Your task to perform on an android device: Search for "energizer triple a" on costco.com, select the first entry, and add it to the cart. Image 0: 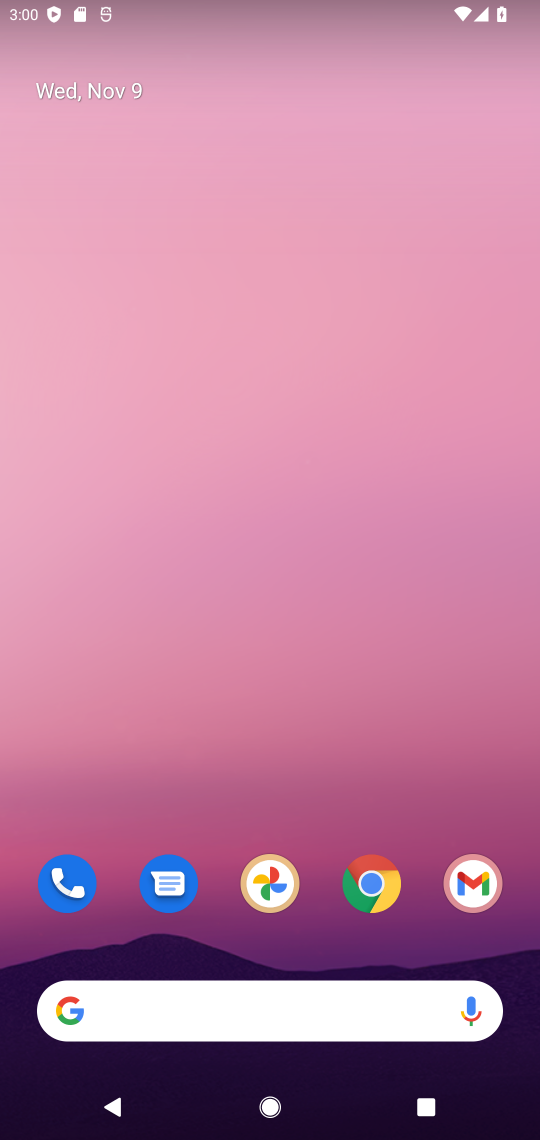
Step 0: click (357, 886)
Your task to perform on an android device: Search for "energizer triple a" on costco.com, select the first entry, and add it to the cart. Image 1: 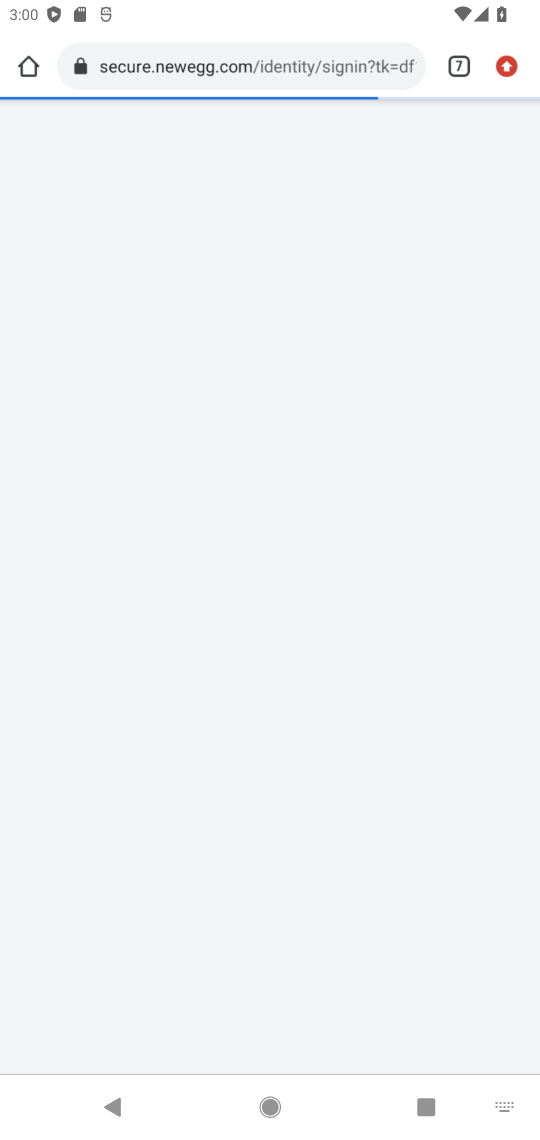
Step 1: click (460, 61)
Your task to perform on an android device: Search for "energizer triple a" on costco.com, select the first entry, and add it to the cart. Image 2: 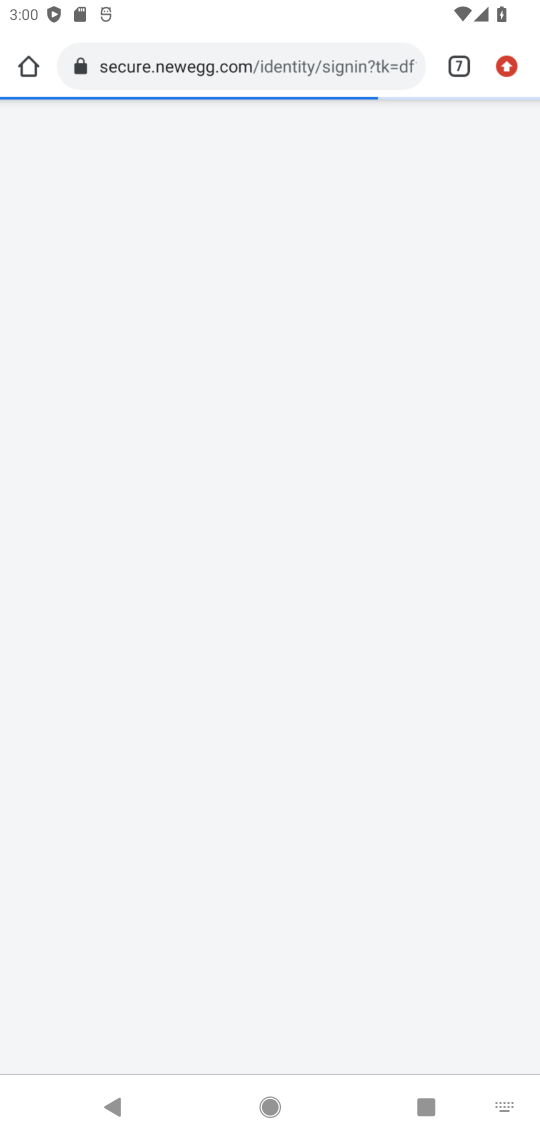
Step 2: click (461, 57)
Your task to perform on an android device: Search for "energizer triple a" on costco.com, select the first entry, and add it to the cart. Image 3: 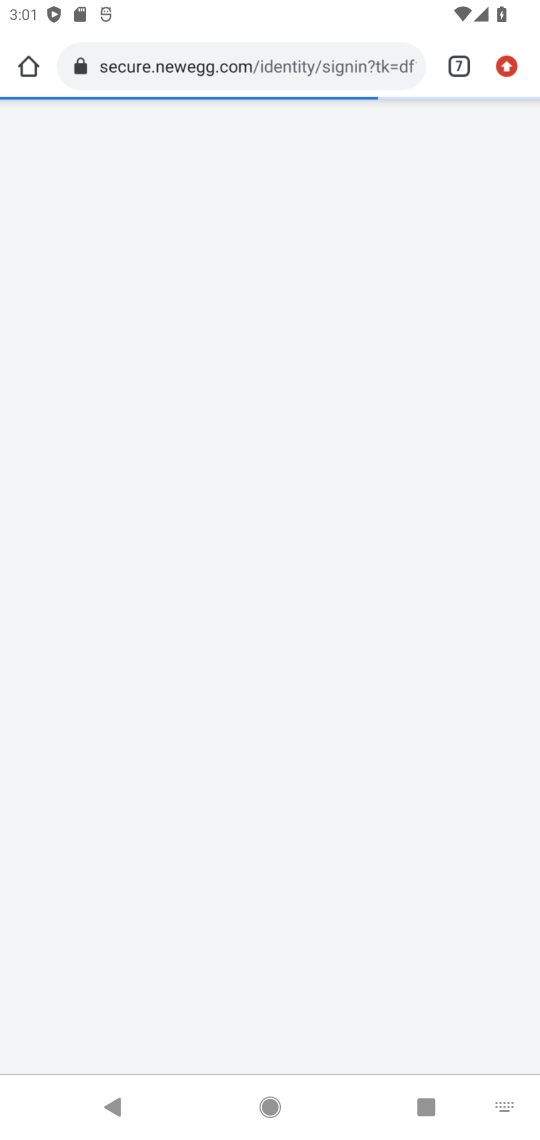
Step 3: press home button
Your task to perform on an android device: Search for "energizer triple a" on costco.com, select the first entry, and add it to the cart. Image 4: 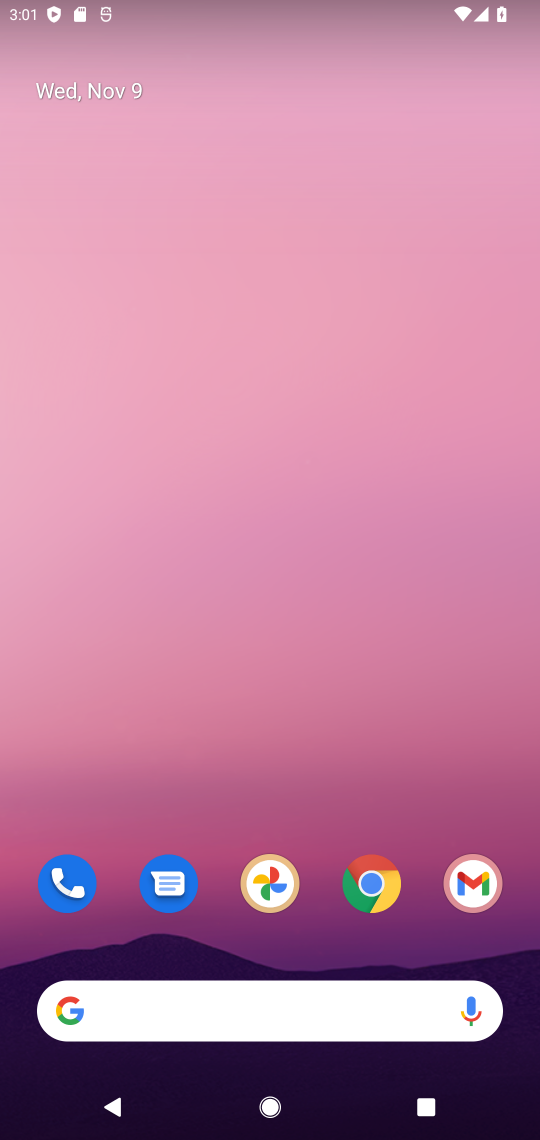
Step 4: click (391, 874)
Your task to perform on an android device: Search for "energizer triple a" on costco.com, select the first entry, and add it to the cart. Image 5: 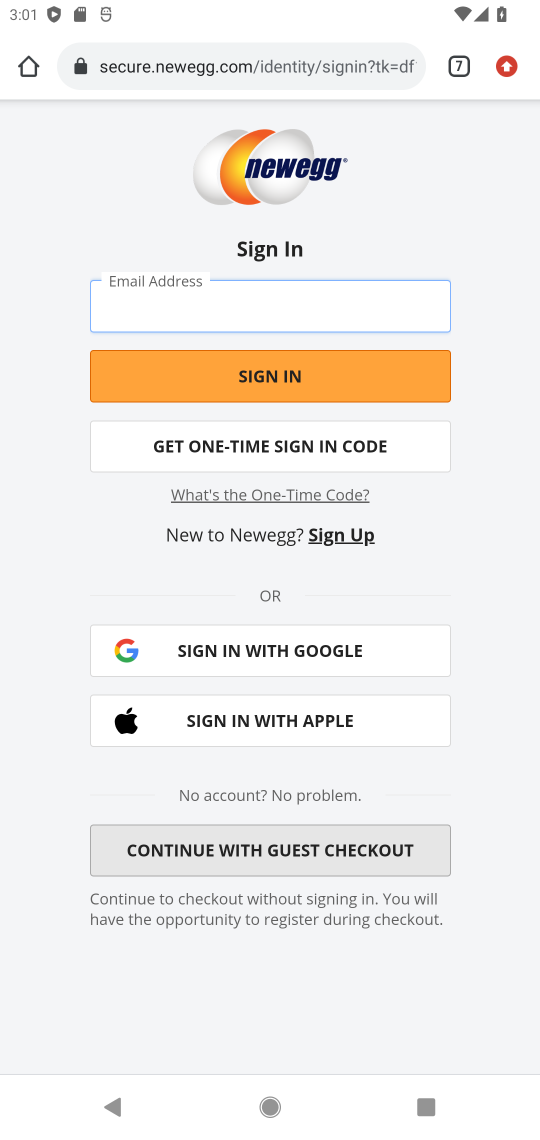
Step 5: click (463, 74)
Your task to perform on an android device: Search for "energizer triple a" on costco.com, select the first entry, and add it to the cart. Image 6: 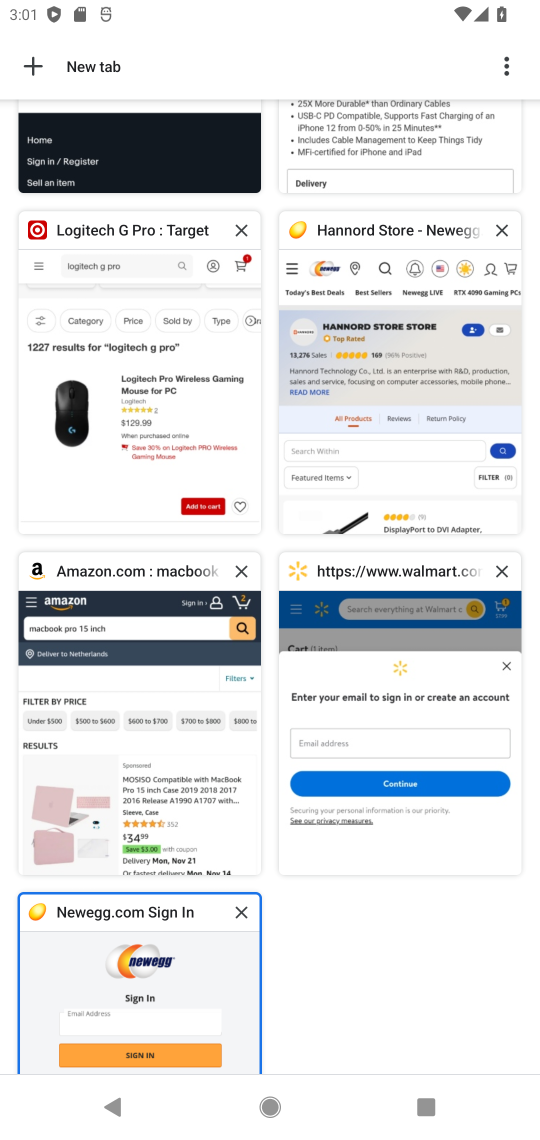
Step 6: drag from (420, 158) to (379, 673)
Your task to perform on an android device: Search for "energizer triple a" on costco.com, select the first entry, and add it to the cart. Image 7: 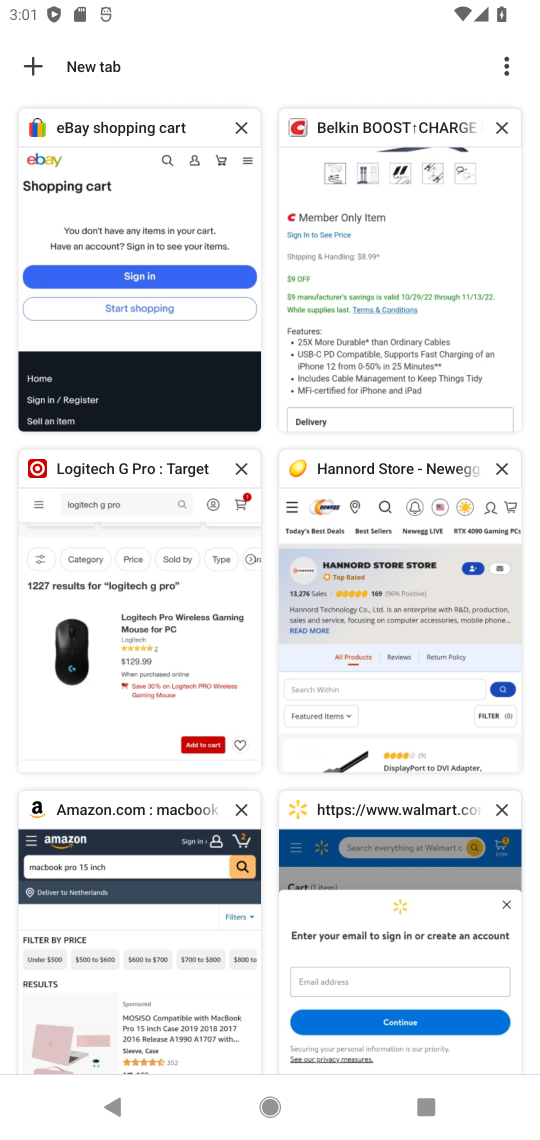
Step 7: click (406, 273)
Your task to perform on an android device: Search for "energizer triple a" on costco.com, select the first entry, and add it to the cart. Image 8: 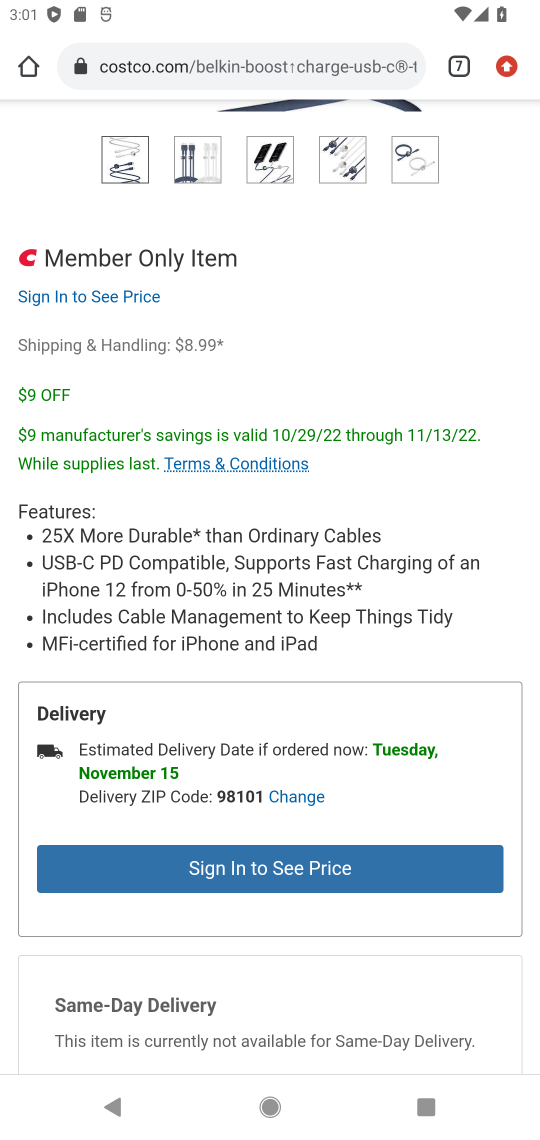
Step 8: drag from (331, 335) to (291, 891)
Your task to perform on an android device: Search for "energizer triple a" on costco.com, select the first entry, and add it to the cart. Image 9: 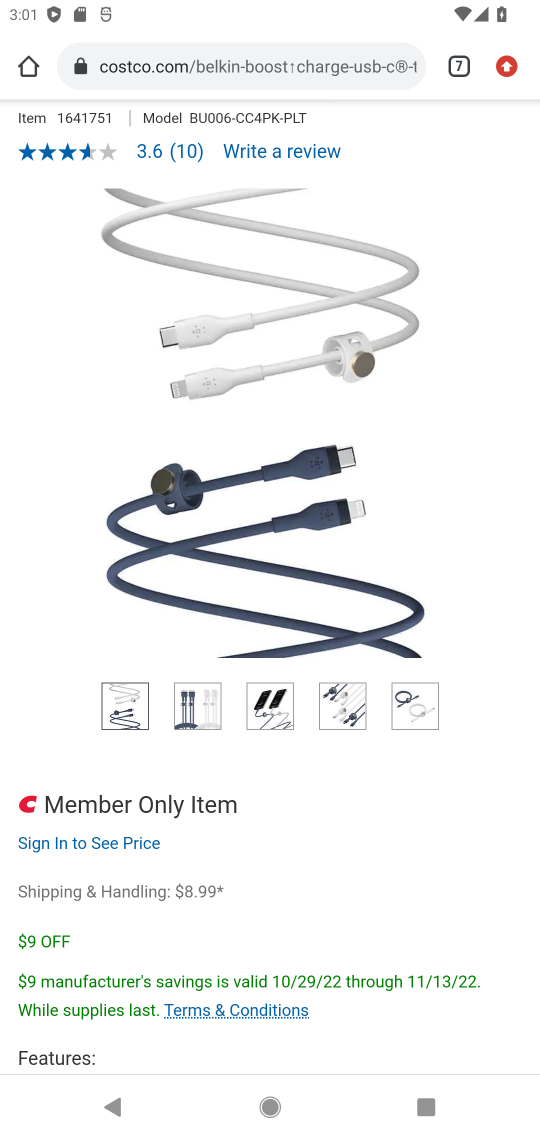
Step 9: drag from (396, 242) to (341, 1132)
Your task to perform on an android device: Search for "energizer triple a" on costco.com, select the first entry, and add it to the cart. Image 10: 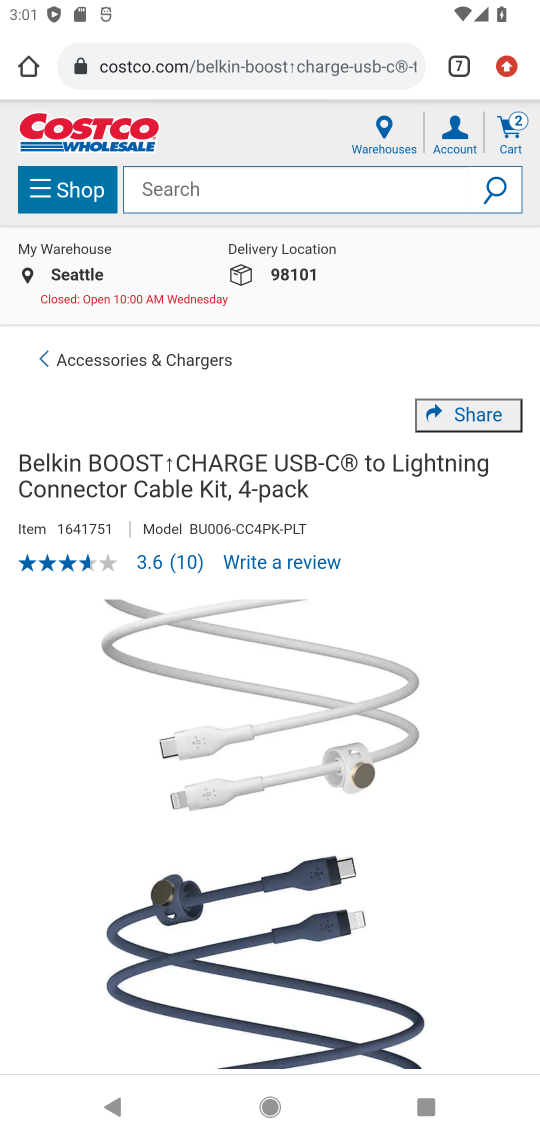
Step 10: click (178, 185)
Your task to perform on an android device: Search for "energizer triple a" on costco.com, select the first entry, and add it to the cart. Image 11: 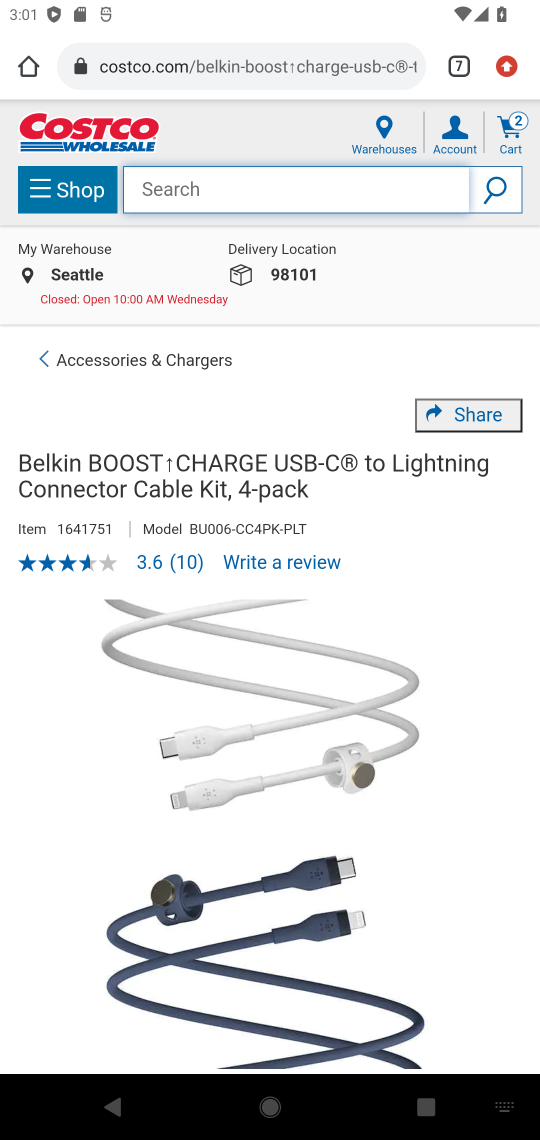
Step 11: type "energizer triple a"
Your task to perform on an android device: Search for "energizer triple a" on costco.com, select the first entry, and add it to the cart. Image 12: 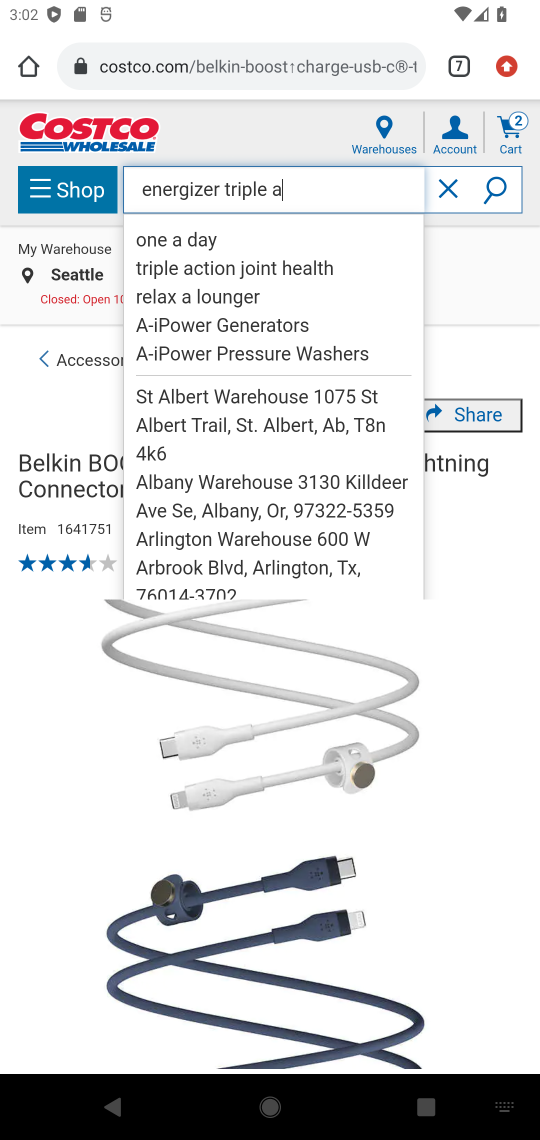
Step 12: click (497, 179)
Your task to perform on an android device: Search for "energizer triple a" on costco.com, select the first entry, and add it to the cart. Image 13: 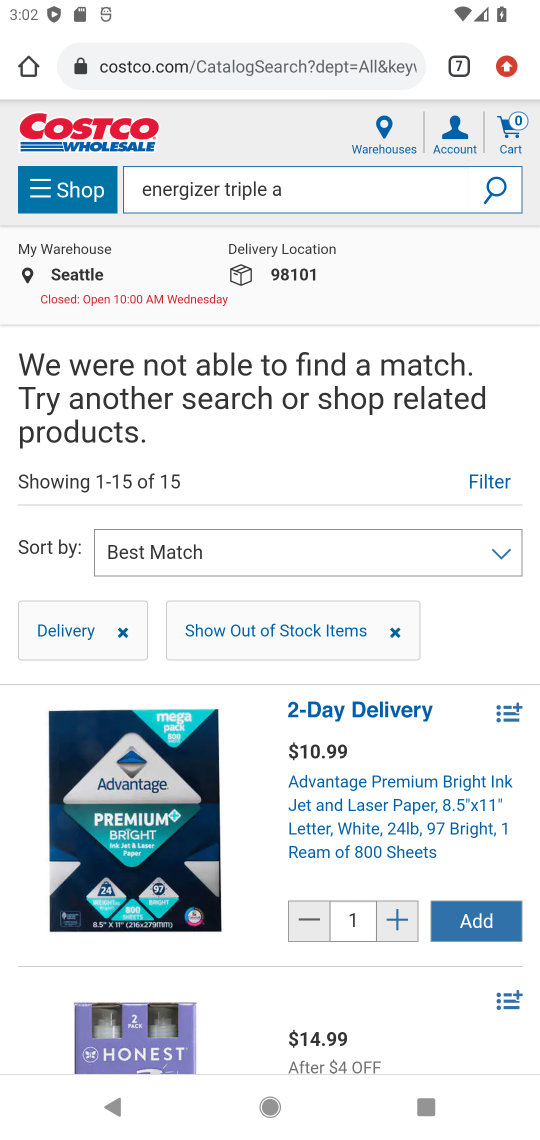
Step 13: drag from (272, 1004) to (346, 391)
Your task to perform on an android device: Search for "energizer triple a" on costco.com, select the first entry, and add it to the cart. Image 14: 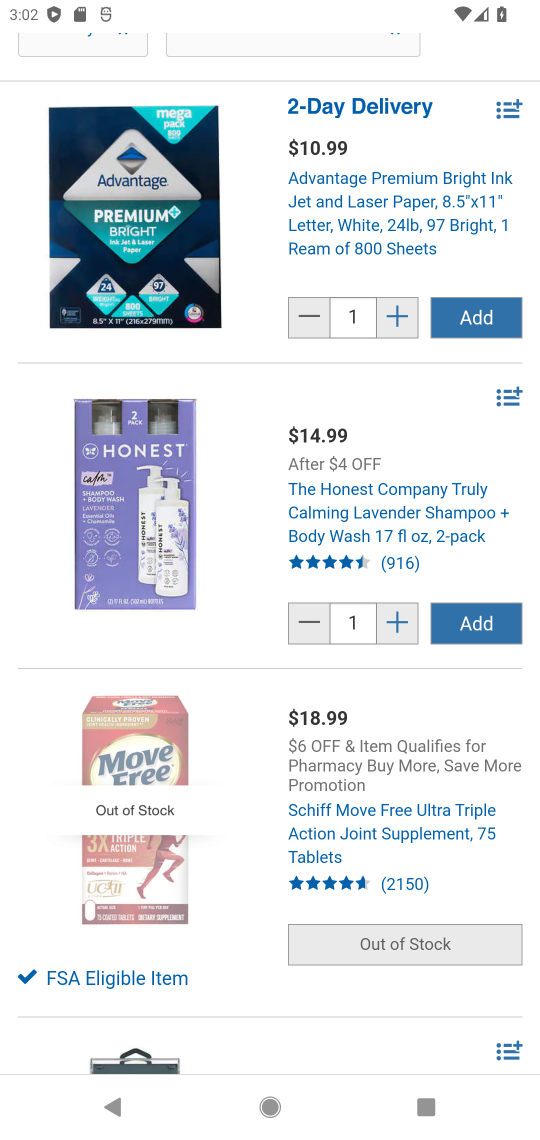
Step 14: drag from (237, 870) to (281, 189)
Your task to perform on an android device: Search for "energizer triple a" on costco.com, select the first entry, and add it to the cart. Image 15: 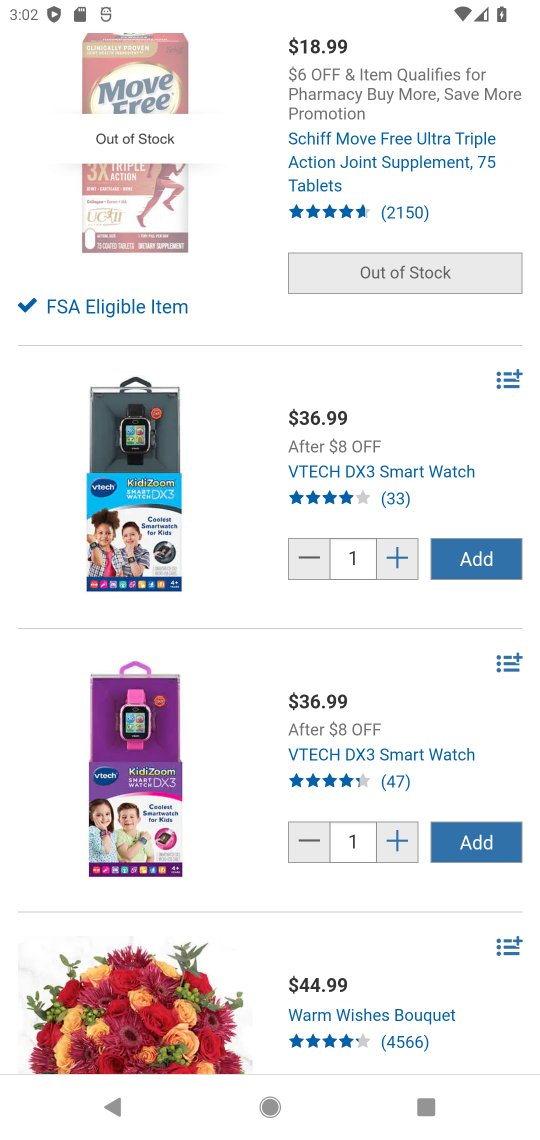
Step 15: drag from (276, 154) to (297, 1009)
Your task to perform on an android device: Search for "energizer triple a" on costco.com, select the first entry, and add it to the cart. Image 16: 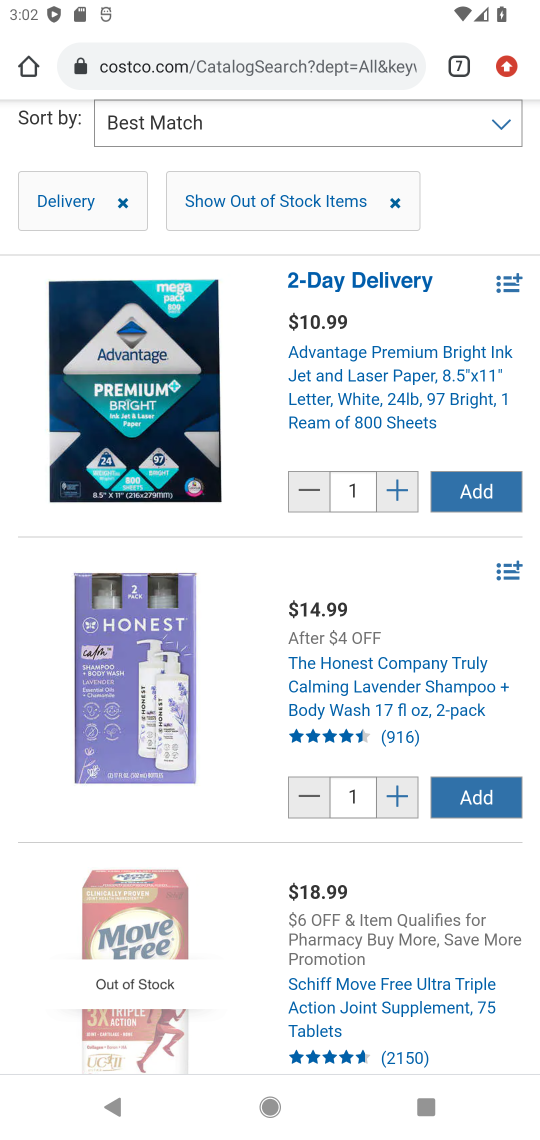
Step 16: drag from (249, 381) to (170, 1060)
Your task to perform on an android device: Search for "energizer triple a" on costco.com, select the first entry, and add it to the cart. Image 17: 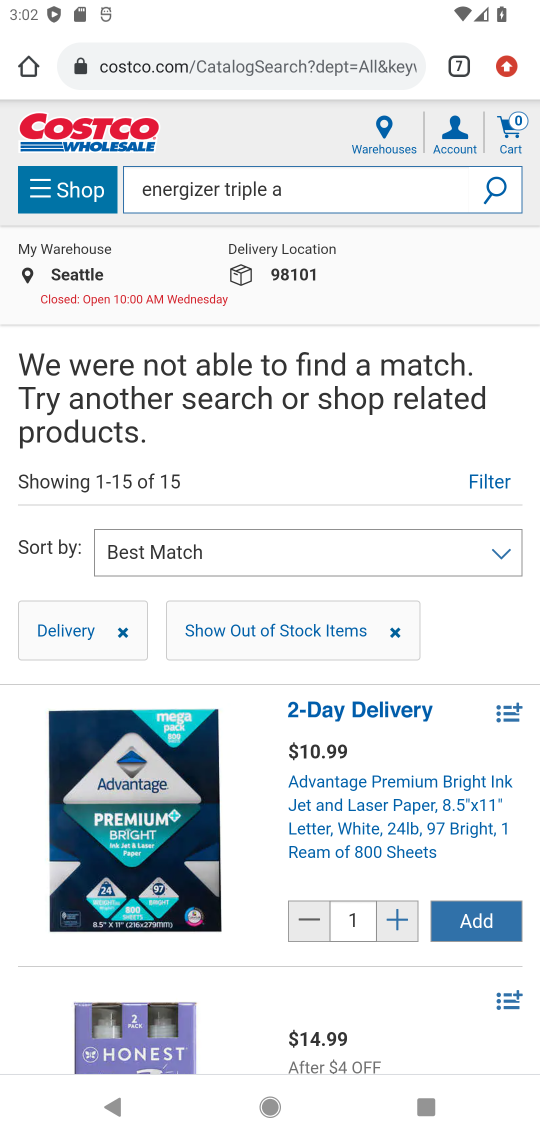
Step 17: click (496, 182)
Your task to perform on an android device: Search for "energizer triple a" on costco.com, select the first entry, and add it to the cart. Image 18: 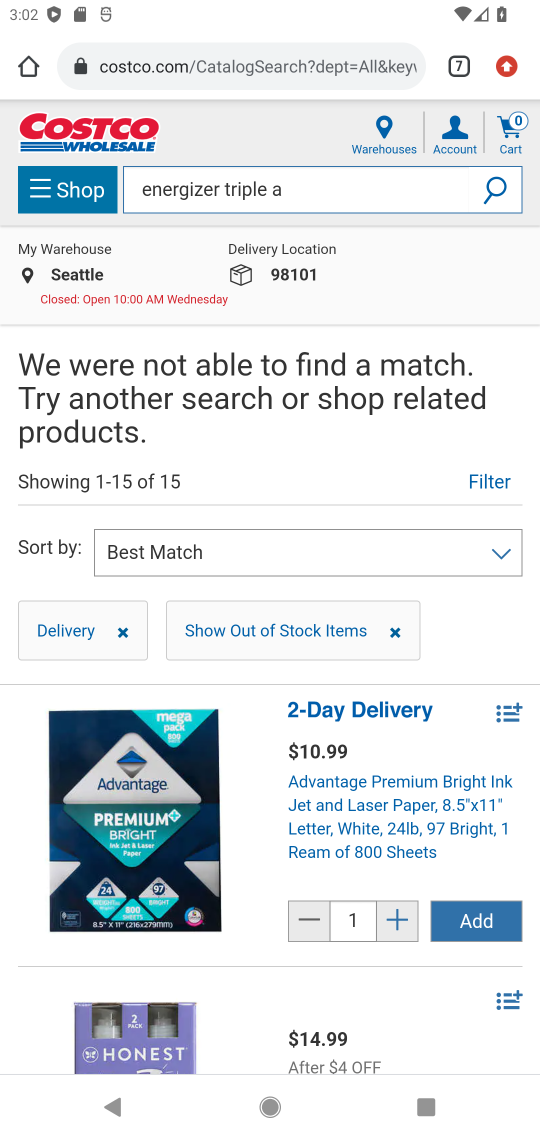
Step 18: click (329, 191)
Your task to perform on an android device: Search for "energizer triple a" on costco.com, select the first entry, and add it to the cart. Image 19: 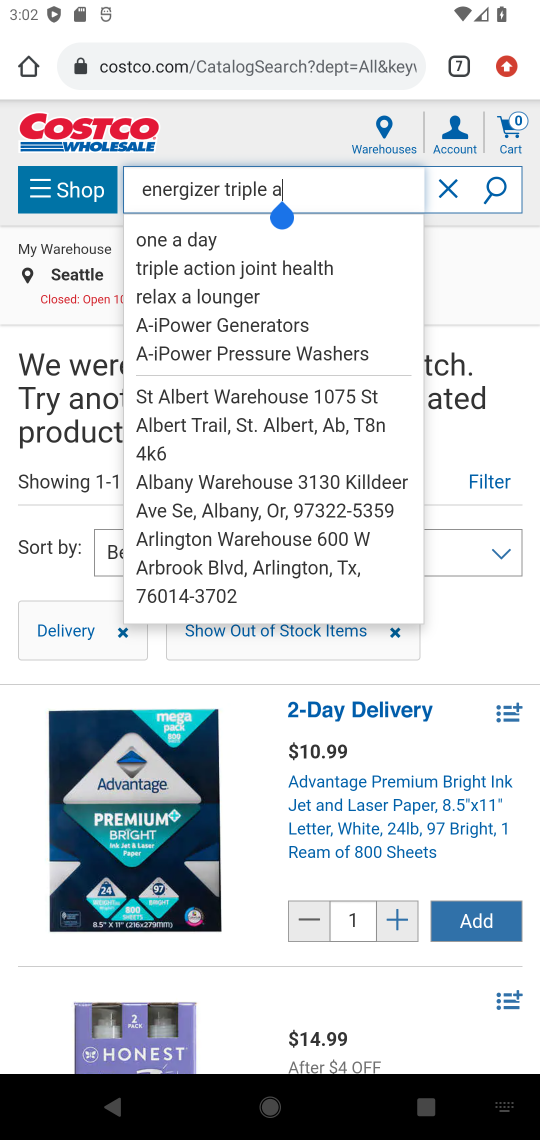
Step 19: type " battery"
Your task to perform on an android device: Search for "energizer triple a" on costco.com, select the first entry, and add it to the cart. Image 20: 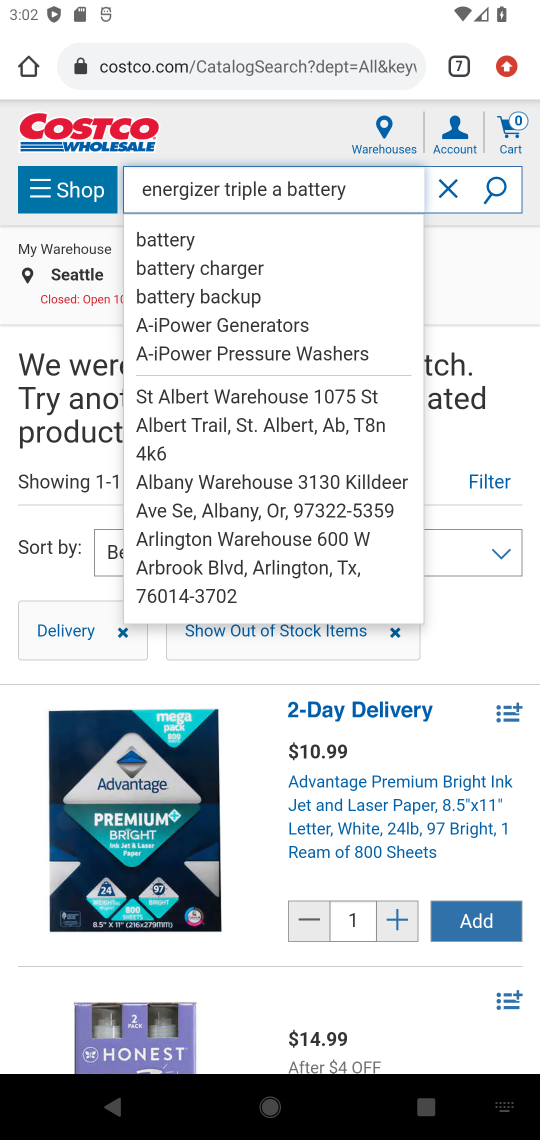
Step 20: click (240, 265)
Your task to perform on an android device: Search for "energizer triple a" on costco.com, select the first entry, and add it to the cart. Image 21: 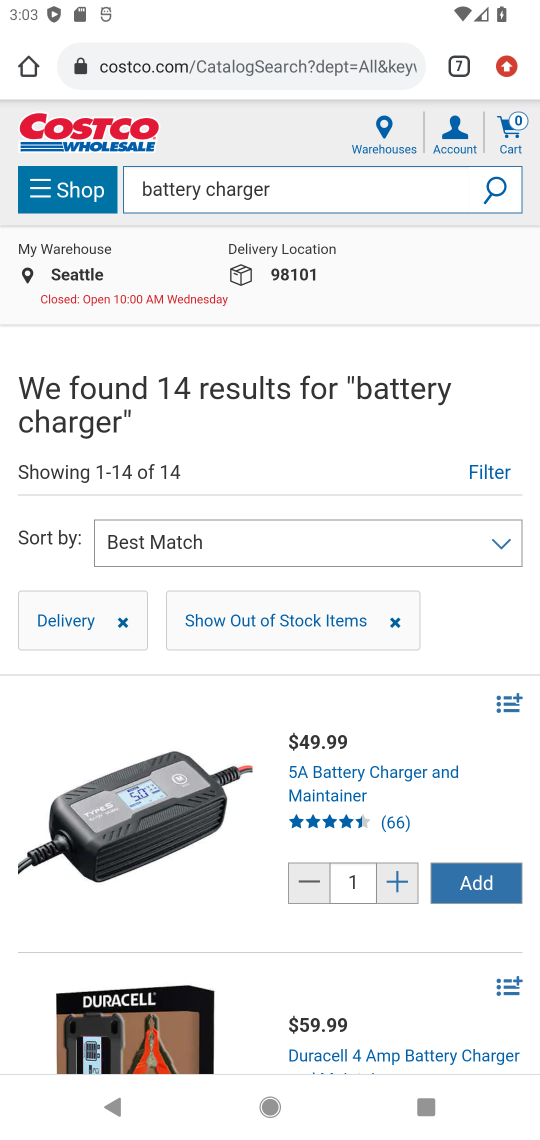
Step 21: task complete